Your task to perform on an android device: toggle data saver in the chrome app Image 0: 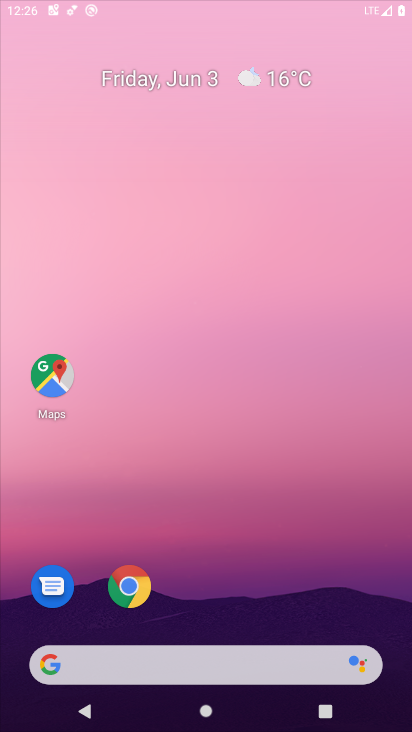
Step 0: click (252, 18)
Your task to perform on an android device: toggle data saver in the chrome app Image 1: 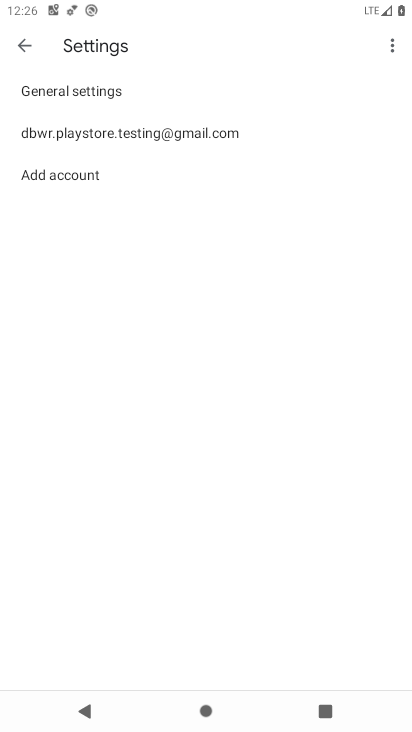
Step 1: press home button
Your task to perform on an android device: toggle data saver in the chrome app Image 2: 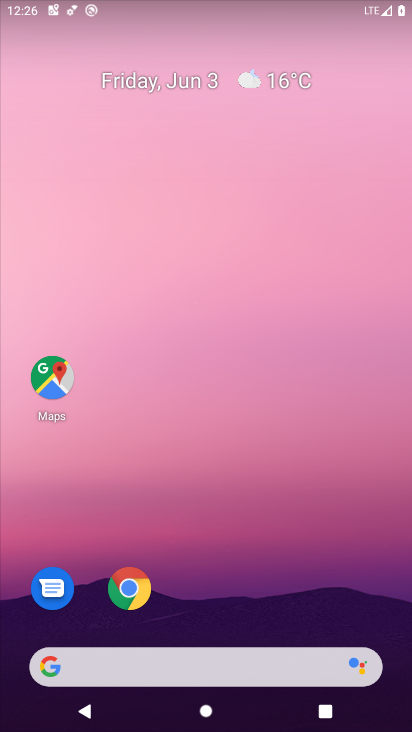
Step 2: drag from (193, 574) to (3, 187)
Your task to perform on an android device: toggle data saver in the chrome app Image 3: 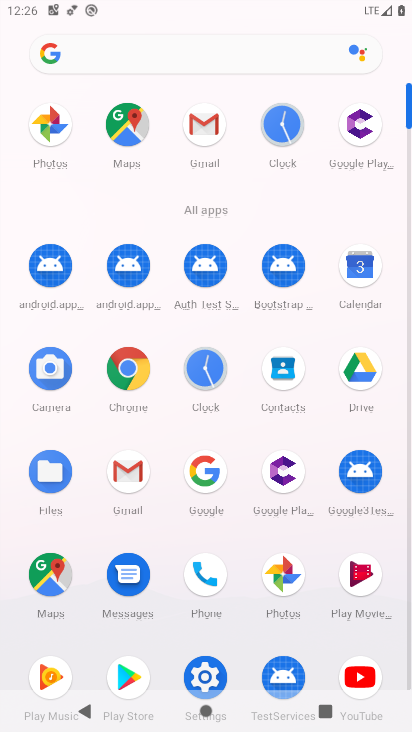
Step 3: click (136, 370)
Your task to perform on an android device: toggle data saver in the chrome app Image 4: 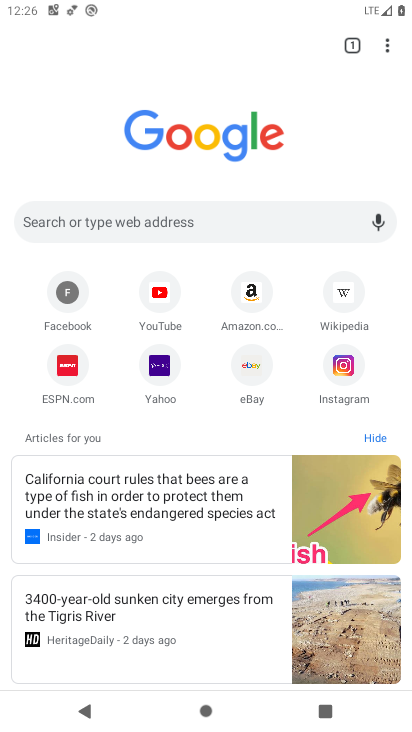
Step 4: drag from (379, 53) to (253, 377)
Your task to perform on an android device: toggle data saver in the chrome app Image 5: 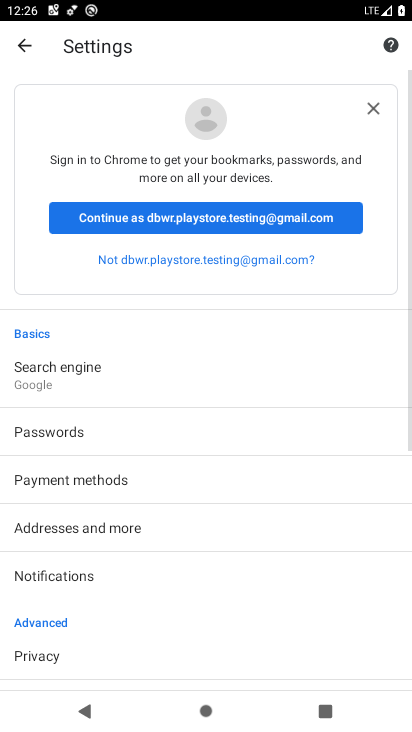
Step 5: drag from (177, 612) to (263, 53)
Your task to perform on an android device: toggle data saver in the chrome app Image 6: 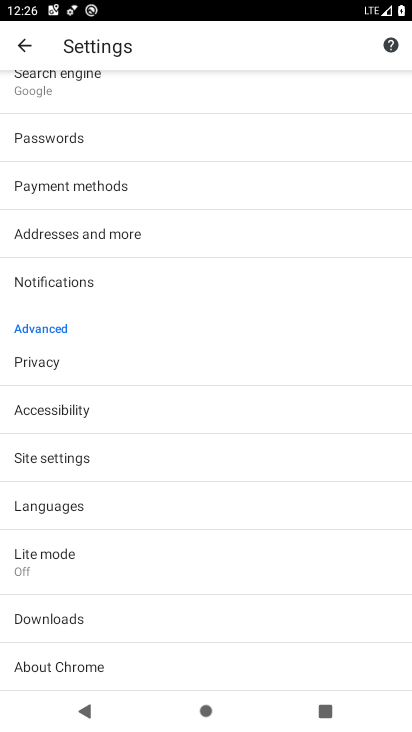
Step 6: click (145, 554)
Your task to perform on an android device: toggle data saver in the chrome app Image 7: 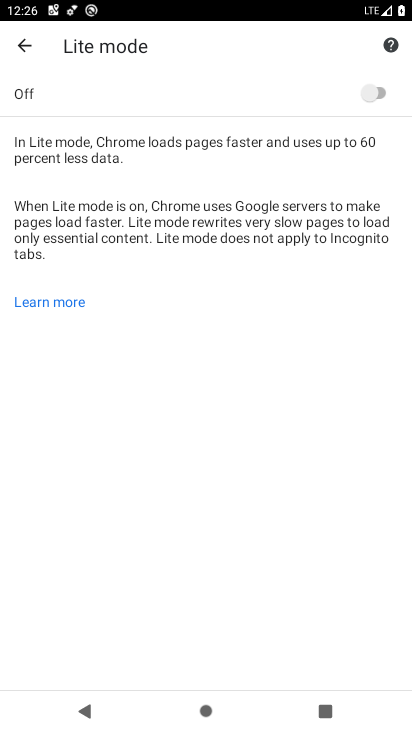
Step 7: click (324, 91)
Your task to perform on an android device: toggle data saver in the chrome app Image 8: 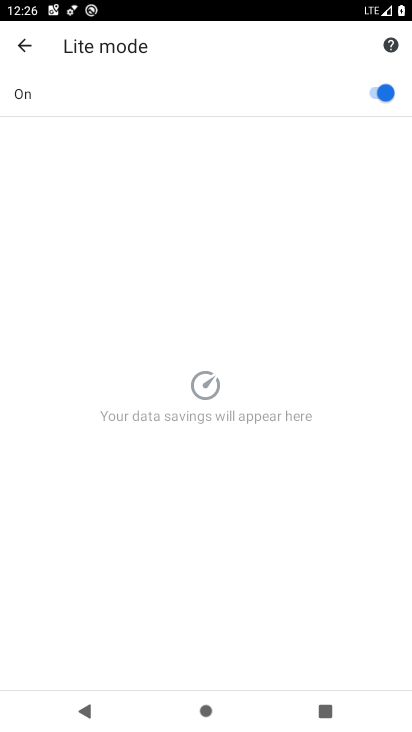
Step 8: task complete